Your task to perform on an android device: turn off airplane mode Image 0: 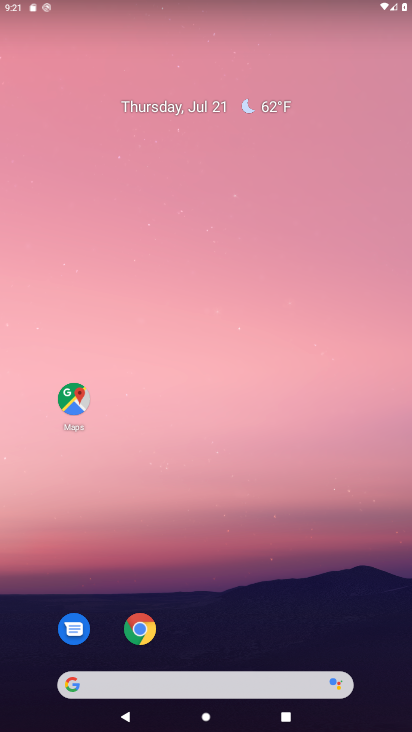
Step 0: drag from (198, 634) to (196, 233)
Your task to perform on an android device: turn off airplane mode Image 1: 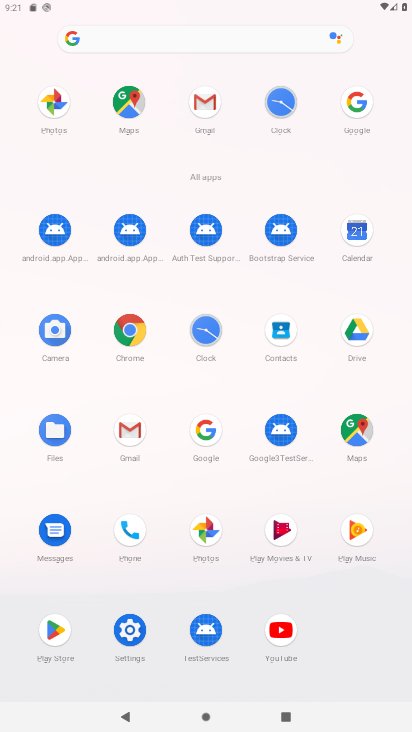
Step 1: click (129, 614)
Your task to perform on an android device: turn off airplane mode Image 2: 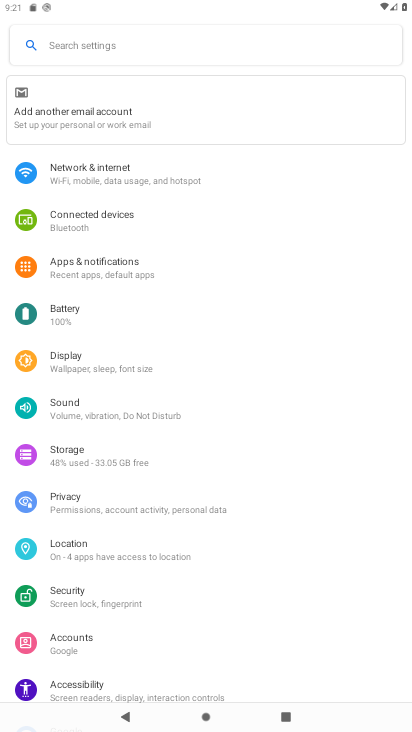
Step 2: click (146, 172)
Your task to perform on an android device: turn off airplane mode Image 3: 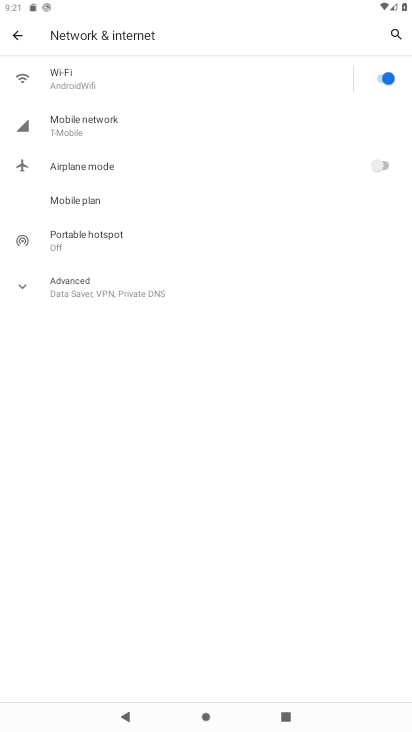
Step 3: task complete